Your task to perform on an android device: What's the weather today? Image 0: 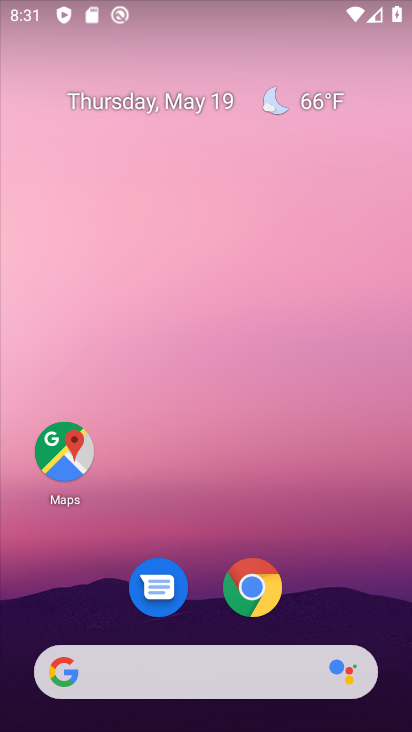
Step 0: drag from (309, 707) to (279, 408)
Your task to perform on an android device: What's the weather today? Image 1: 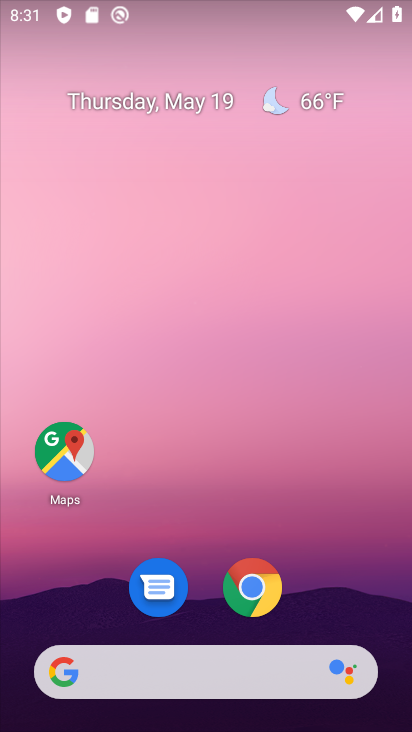
Step 1: drag from (253, 679) to (227, 188)
Your task to perform on an android device: What's the weather today? Image 2: 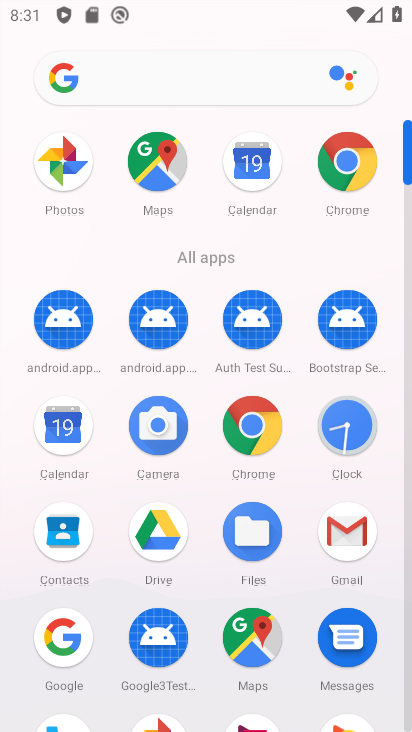
Step 2: click (115, 91)
Your task to perform on an android device: What's the weather today? Image 3: 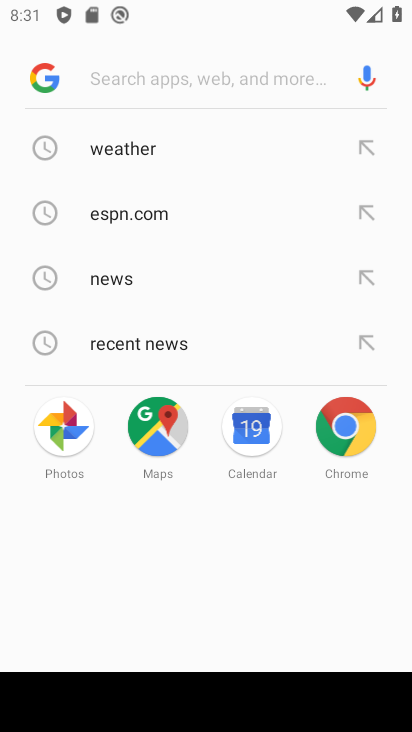
Step 3: click (155, 159)
Your task to perform on an android device: What's the weather today? Image 4: 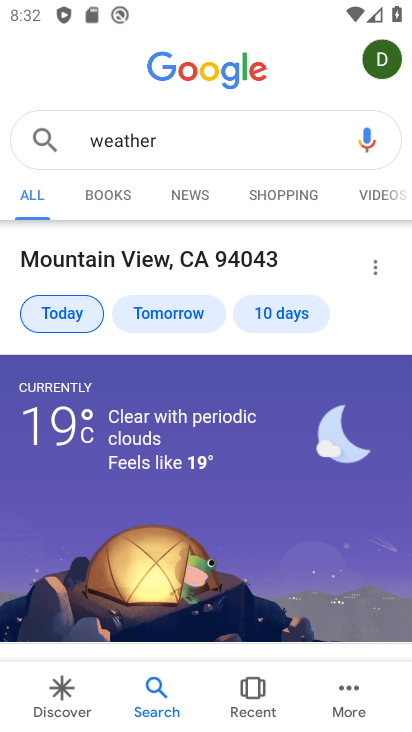
Step 4: task complete